Your task to perform on an android device: What is the news today? Image 0: 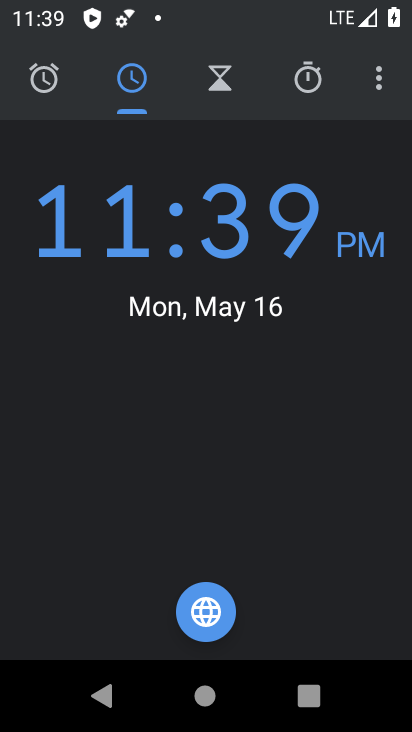
Step 0: press back button
Your task to perform on an android device: What is the news today? Image 1: 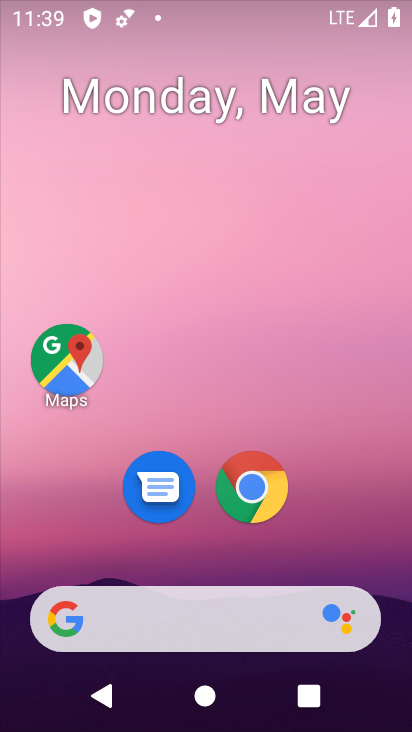
Step 1: click (147, 611)
Your task to perform on an android device: What is the news today? Image 2: 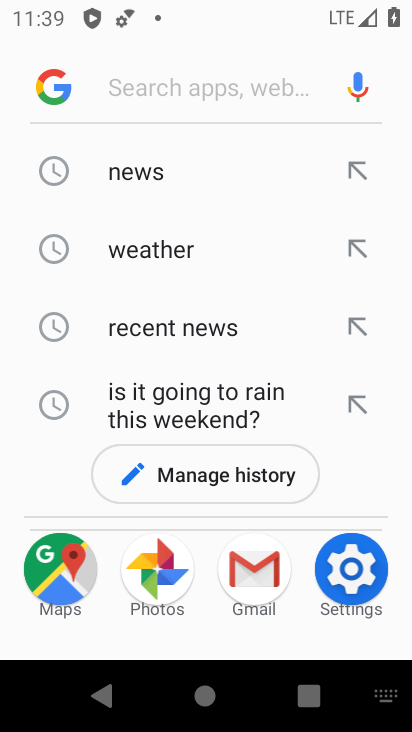
Step 2: click (149, 168)
Your task to perform on an android device: What is the news today? Image 3: 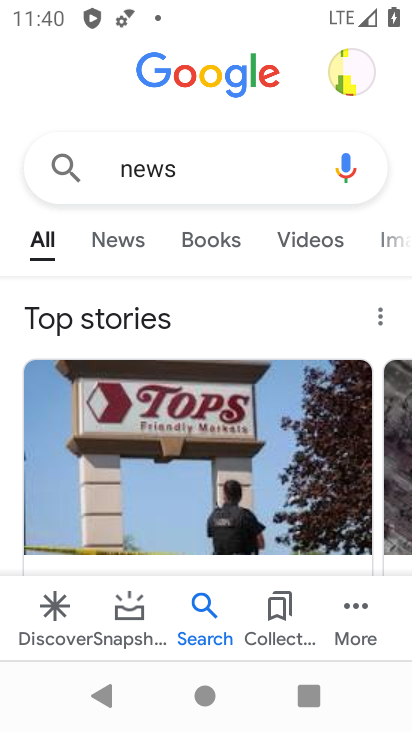
Step 3: task complete